Your task to perform on an android device: Open maps Image 0: 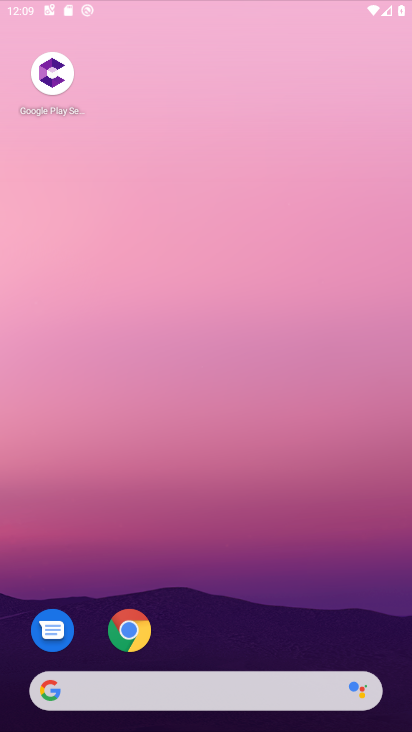
Step 0: click (220, 134)
Your task to perform on an android device: Open maps Image 1: 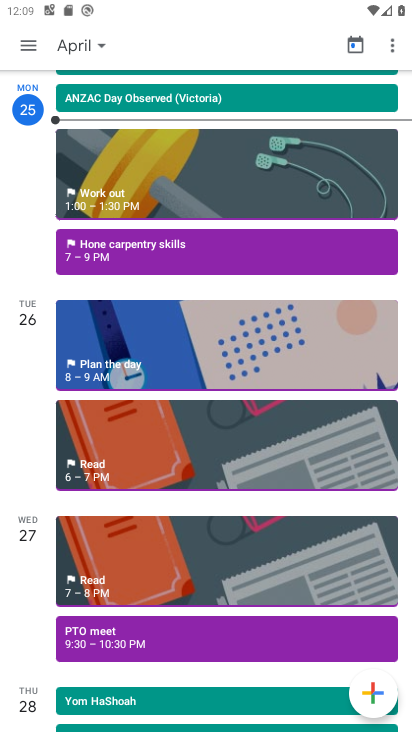
Step 1: drag from (192, 652) to (245, 211)
Your task to perform on an android device: Open maps Image 2: 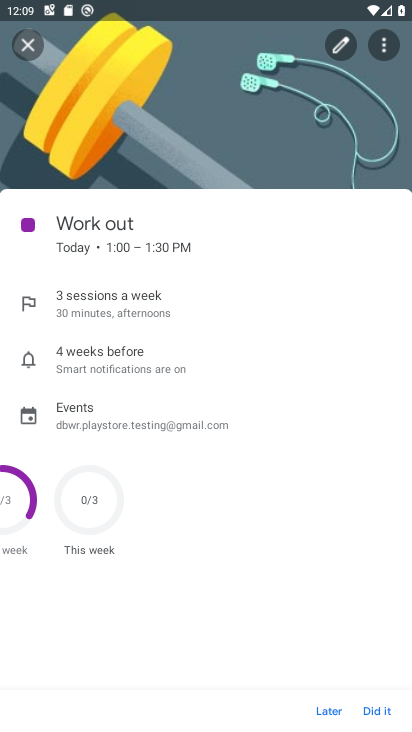
Step 2: click (17, 50)
Your task to perform on an android device: Open maps Image 3: 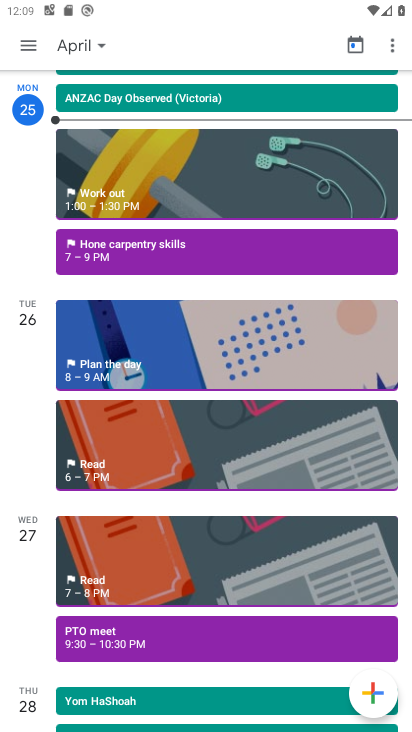
Step 3: press home button
Your task to perform on an android device: Open maps Image 4: 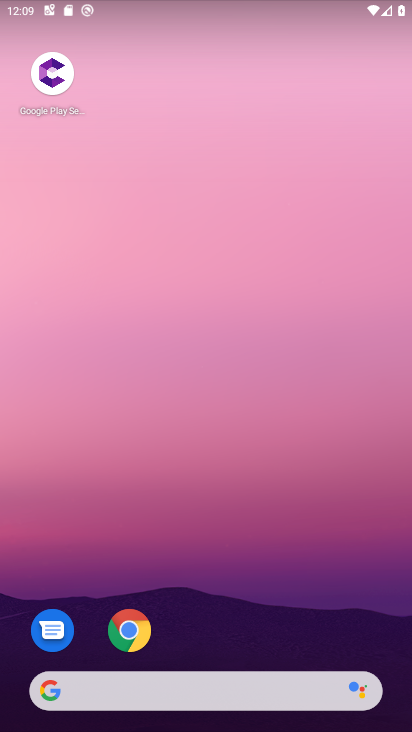
Step 4: drag from (182, 609) to (220, 96)
Your task to perform on an android device: Open maps Image 5: 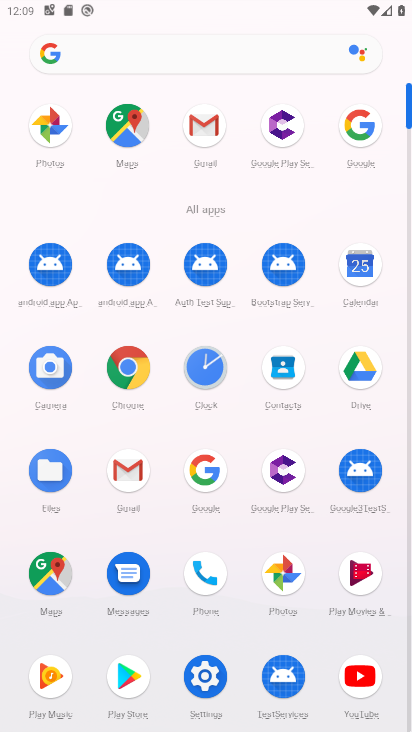
Step 5: click (53, 566)
Your task to perform on an android device: Open maps Image 6: 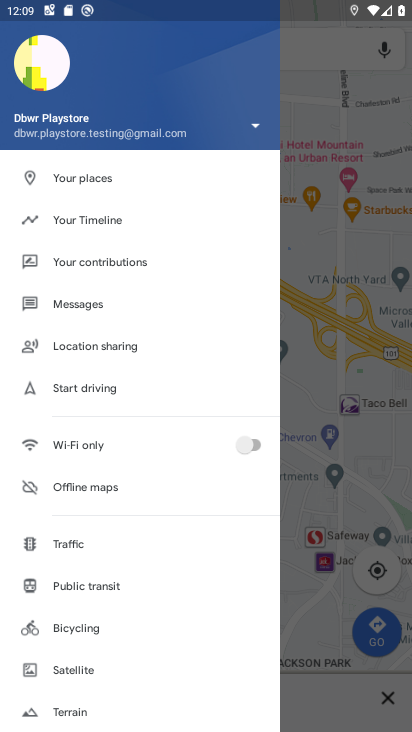
Step 6: task complete